Your task to perform on an android device: open a bookmark in the chrome app Image 0: 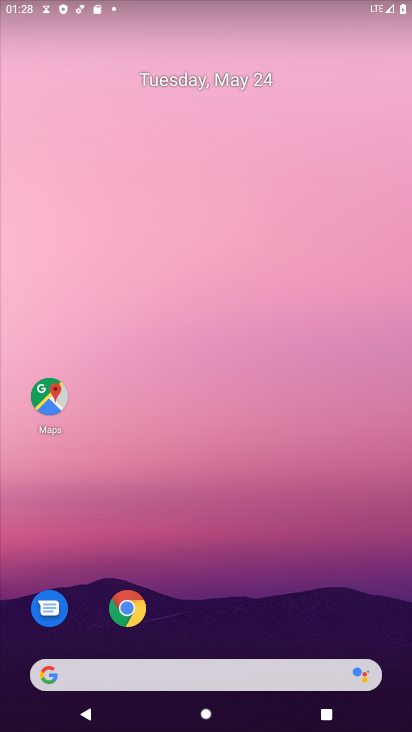
Step 0: drag from (222, 628) to (235, 158)
Your task to perform on an android device: open a bookmark in the chrome app Image 1: 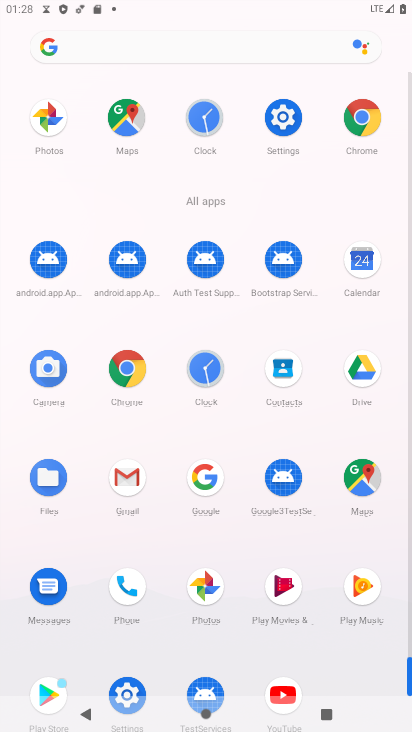
Step 1: click (370, 132)
Your task to perform on an android device: open a bookmark in the chrome app Image 2: 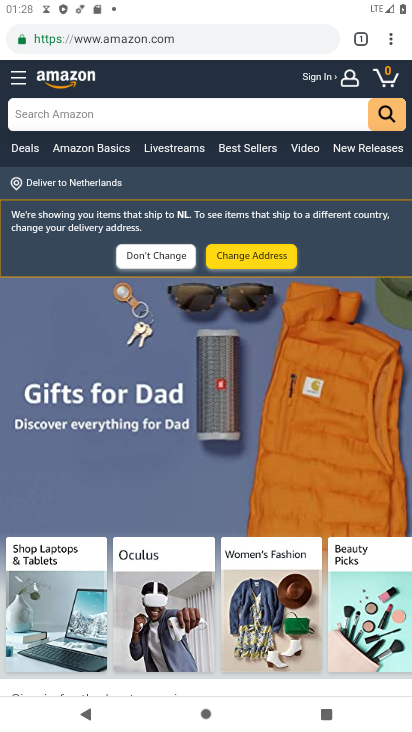
Step 2: click (401, 40)
Your task to perform on an android device: open a bookmark in the chrome app Image 3: 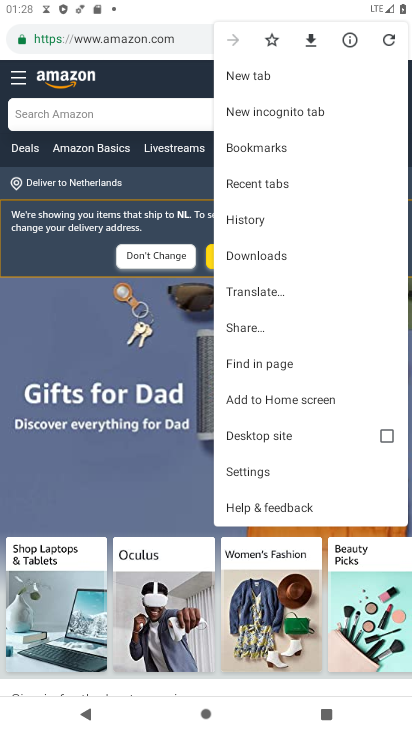
Step 3: click (322, 145)
Your task to perform on an android device: open a bookmark in the chrome app Image 4: 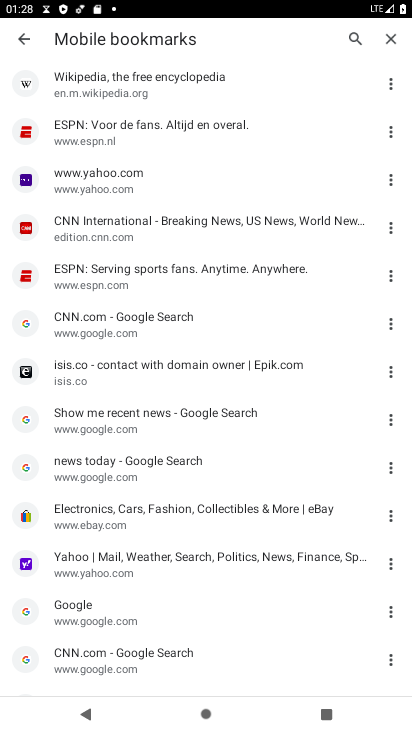
Step 4: click (156, 266)
Your task to perform on an android device: open a bookmark in the chrome app Image 5: 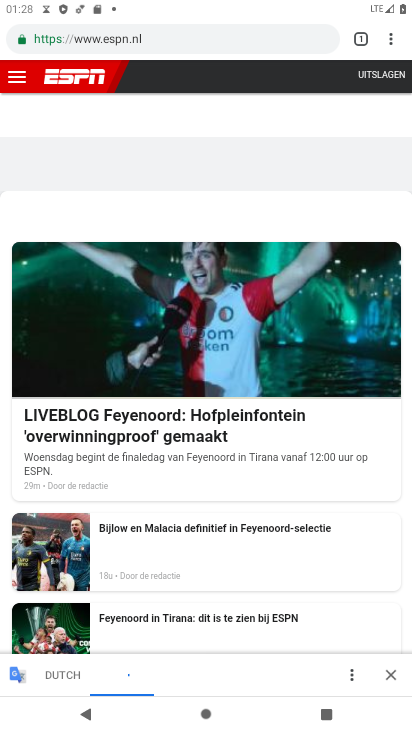
Step 5: task complete